Your task to perform on an android device: star an email in the gmail app Image 0: 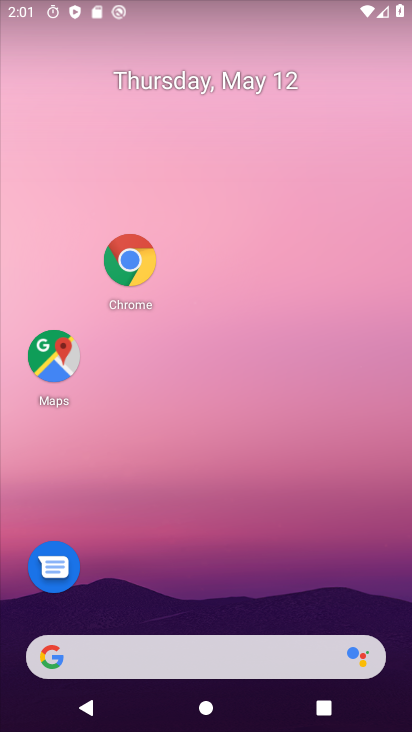
Step 0: drag from (197, 637) to (227, 272)
Your task to perform on an android device: star an email in the gmail app Image 1: 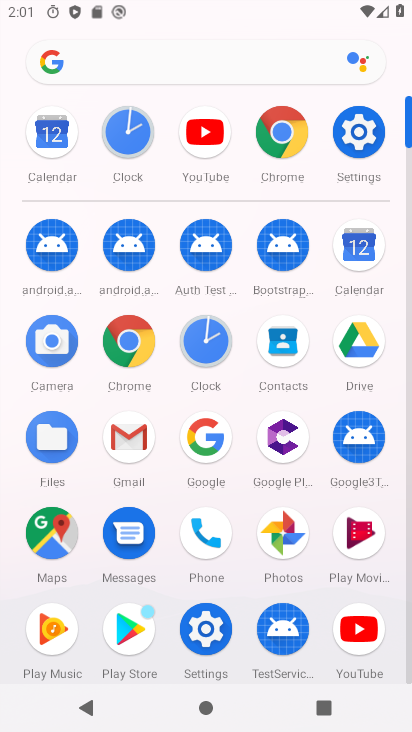
Step 1: click (124, 446)
Your task to perform on an android device: star an email in the gmail app Image 2: 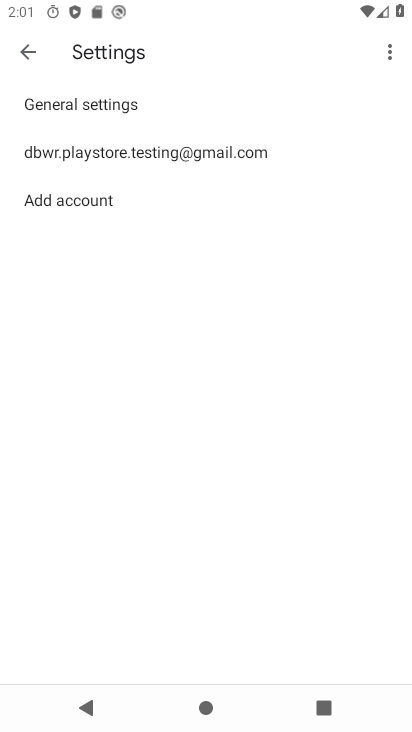
Step 2: click (20, 60)
Your task to perform on an android device: star an email in the gmail app Image 3: 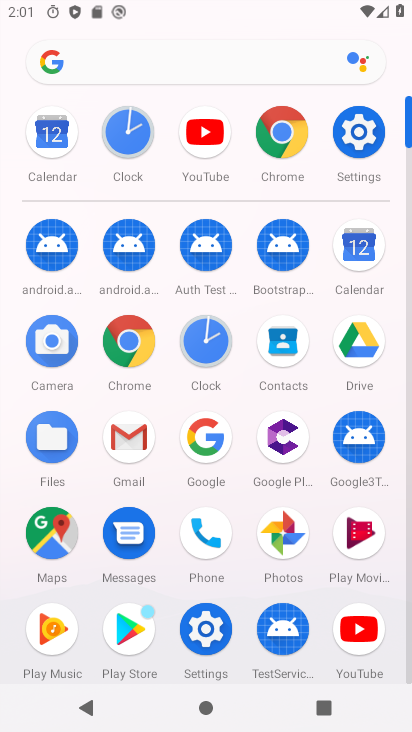
Step 3: click (125, 442)
Your task to perform on an android device: star an email in the gmail app Image 4: 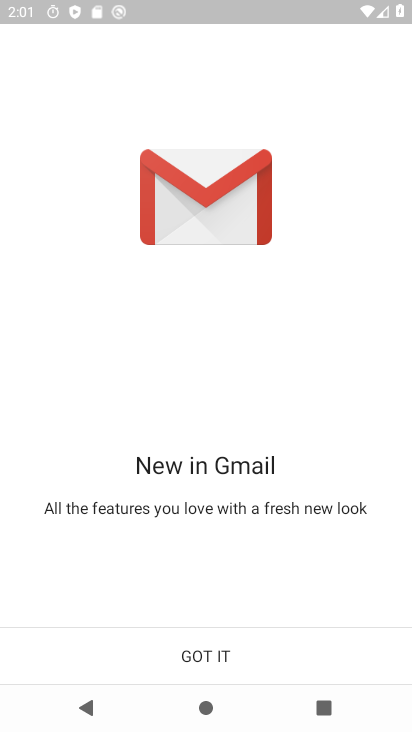
Step 4: click (221, 653)
Your task to perform on an android device: star an email in the gmail app Image 5: 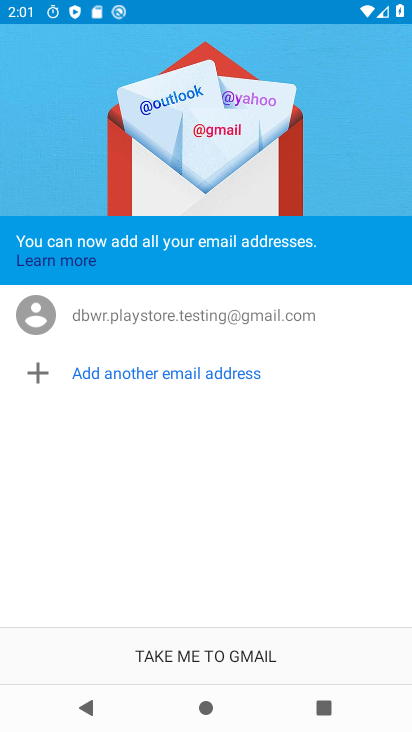
Step 5: click (221, 659)
Your task to perform on an android device: star an email in the gmail app Image 6: 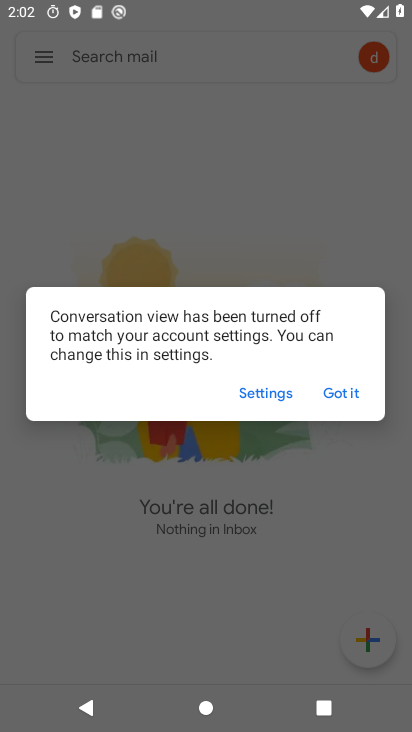
Step 6: click (349, 393)
Your task to perform on an android device: star an email in the gmail app Image 7: 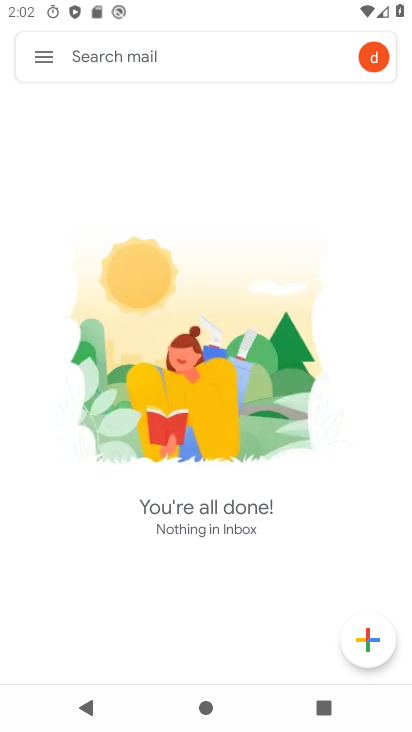
Step 7: click (36, 58)
Your task to perform on an android device: star an email in the gmail app Image 8: 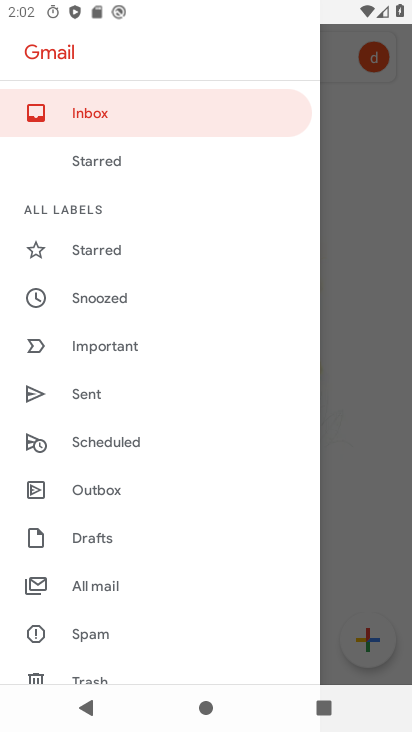
Step 8: click (89, 254)
Your task to perform on an android device: star an email in the gmail app Image 9: 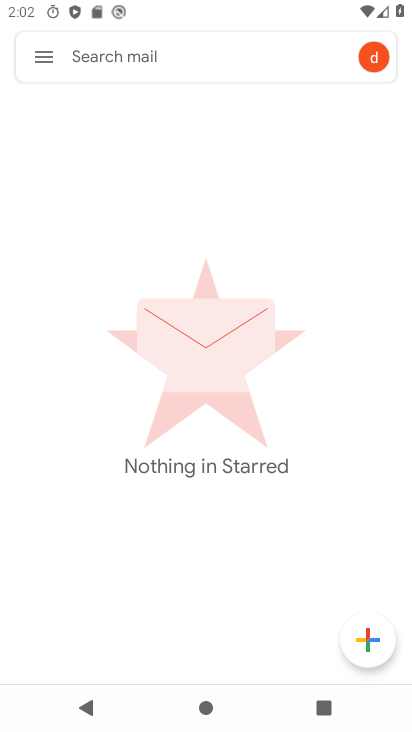
Step 9: task complete